Your task to perform on an android device: Open the calendar app, open the side menu, and click the "Day" option Image 0: 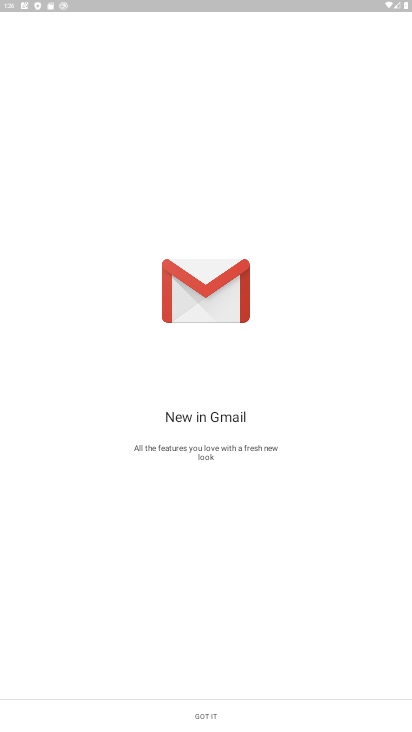
Step 0: press home button
Your task to perform on an android device: Open the calendar app, open the side menu, and click the "Day" option Image 1: 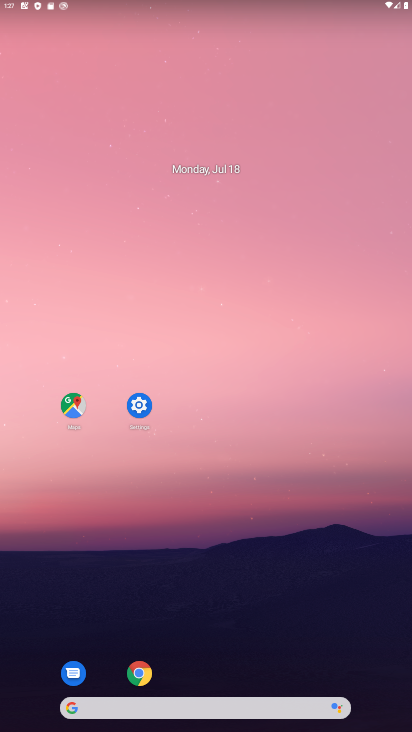
Step 1: drag from (388, 717) to (315, 27)
Your task to perform on an android device: Open the calendar app, open the side menu, and click the "Day" option Image 2: 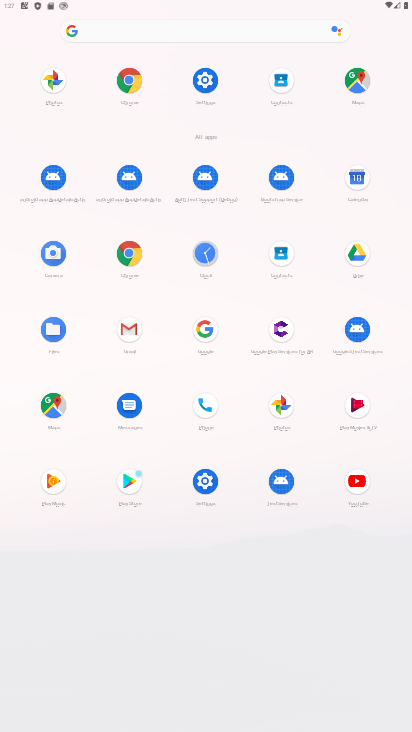
Step 2: click (356, 181)
Your task to perform on an android device: Open the calendar app, open the side menu, and click the "Day" option Image 3: 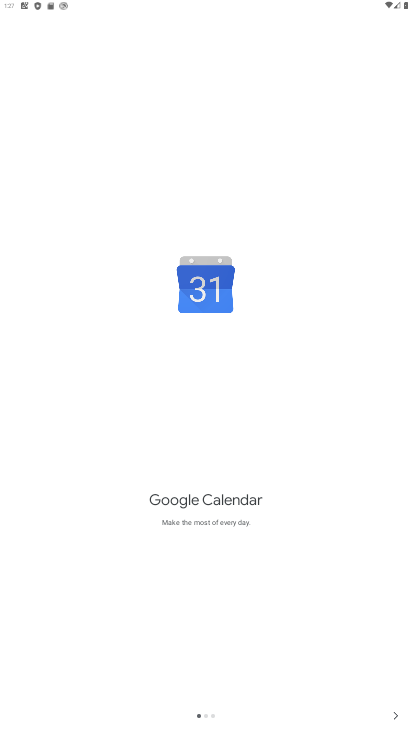
Step 3: click (391, 713)
Your task to perform on an android device: Open the calendar app, open the side menu, and click the "Day" option Image 4: 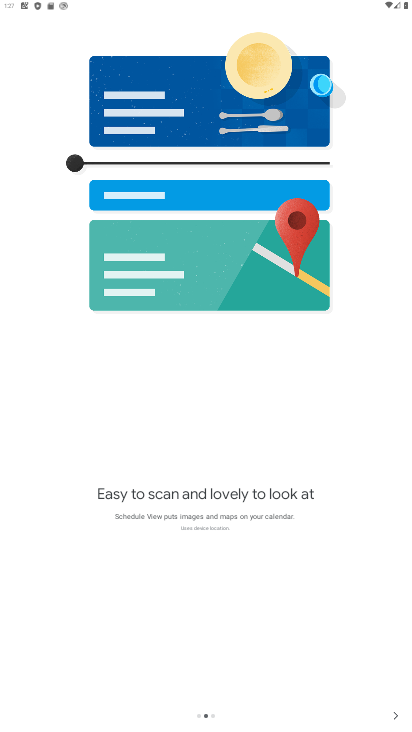
Step 4: click (392, 710)
Your task to perform on an android device: Open the calendar app, open the side menu, and click the "Day" option Image 5: 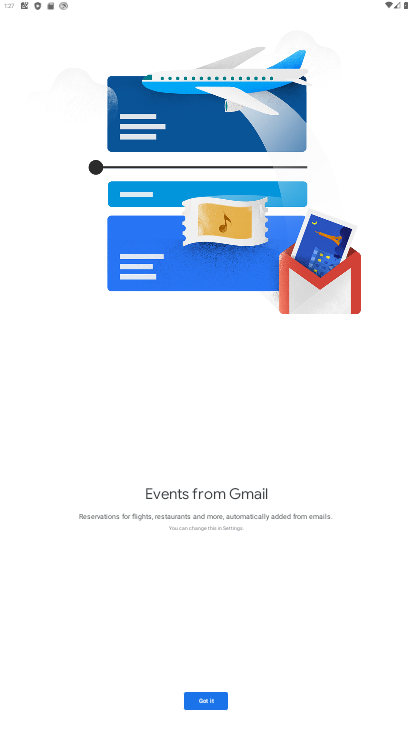
Step 5: click (392, 710)
Your task to perform on an android device: Open the calendar app, open the side menu, and click the "Day" option Image 6: 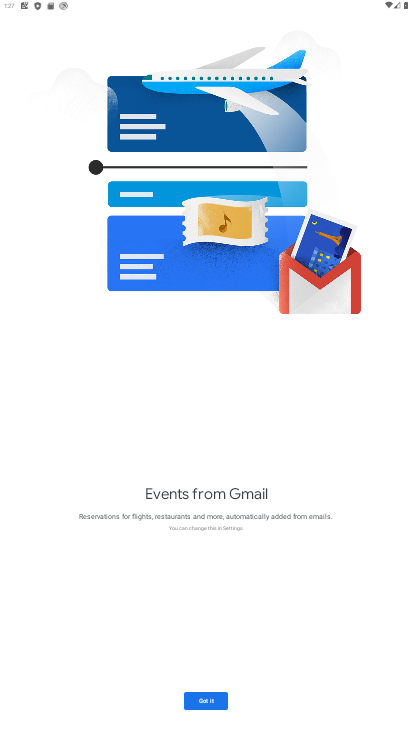
Step 6: click (221, 707)
Your task to perform on an android device: Open the calendar app, open the side menu, and click the "Day" option Image 7: 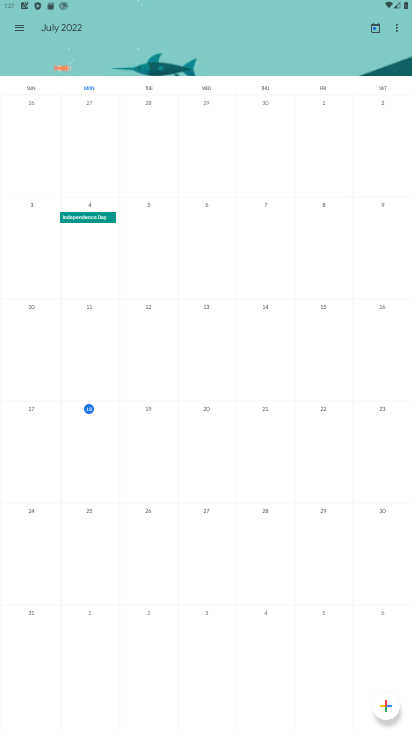
Step 7: click (12, 32)
Your task to perform on an android device: Open the calendar app, open the side menu, and click the "Day" option Image 8: 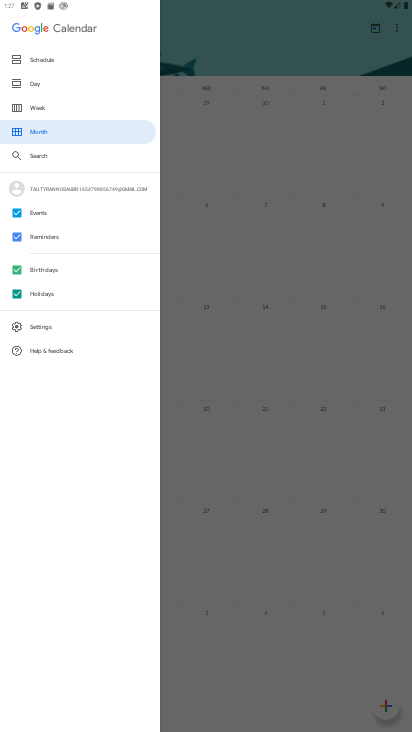
Step 8: click (35, 80)
Your task to perform on an android device: Open the calendar app, open the side menu, and click the "Day" option Image 9: 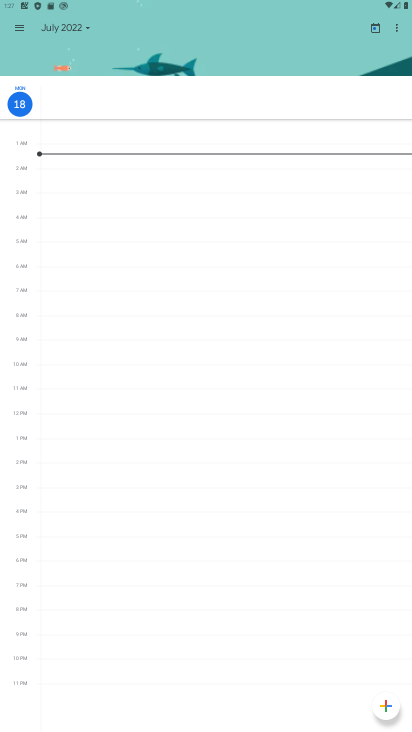
Step 9: task complete